Your task to perform on an android device: Go to calendar. Show me events next week Image 0: 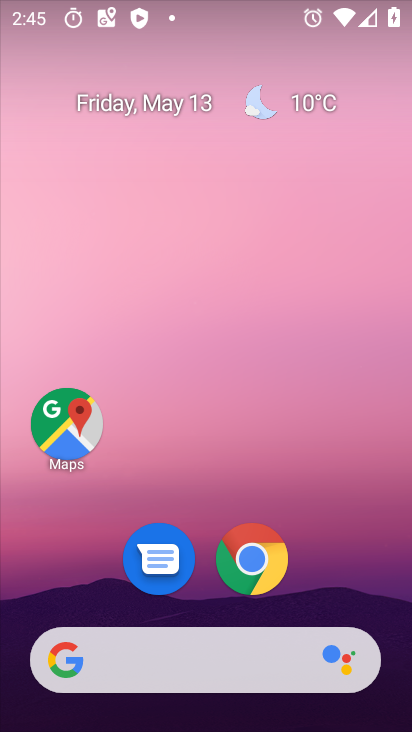
Step 0: drag from (202, 609) to (227, 287)
Your task to perform on an android device: Go to calendar. Show me events next week Image 1: 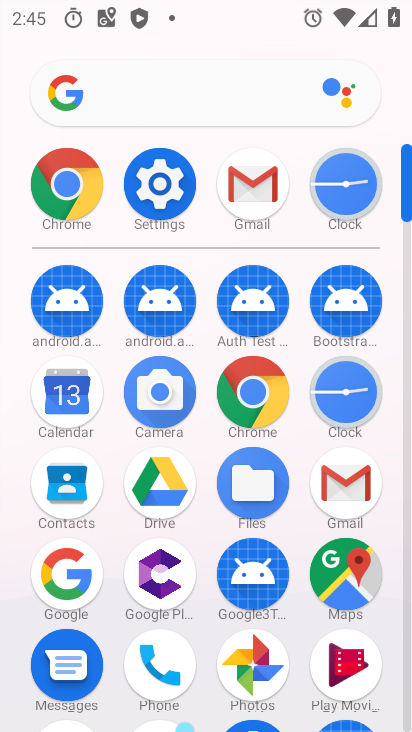
Step 1: click (85, 394)
Your task to perform on an android device: Go to calendar. Show me events next week Image 2: 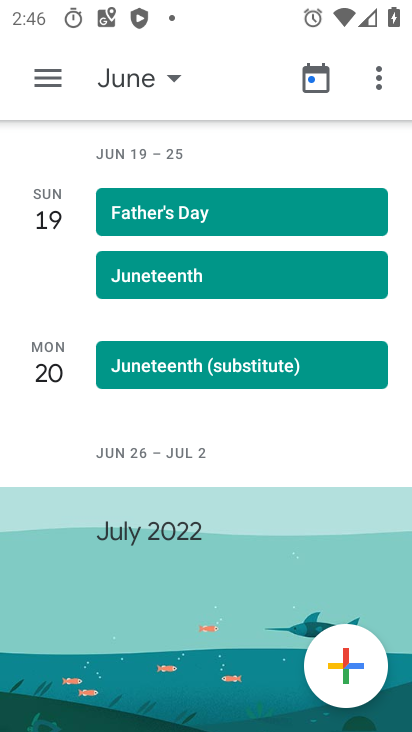
Step 2: click (165, 84)
Your task to perform on an android device: Go to calendar. Show me events next week Image 3: 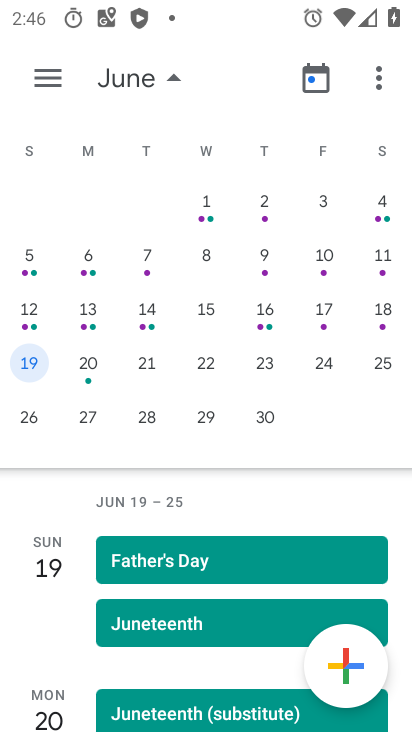
Step 3: drag from (69, 279) to (359, 294)
Your task to perform on an android device: Go to calendar. Show me events next week Image 4: 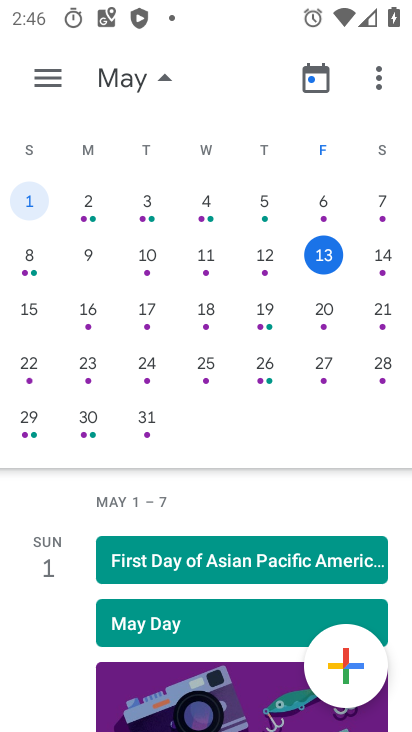
Step 4: click (85, 327)
Your task to perform on an android device: Go to calendar. Show me events next week Image 5: 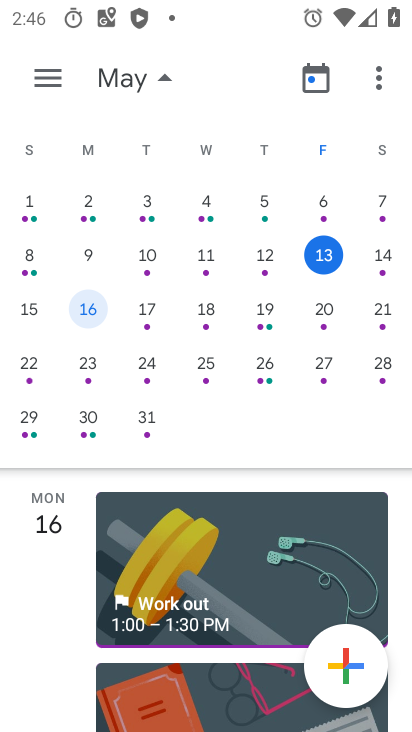
Step 5: click (131, 314)
Your task to perform on an android device: Go to calendar. Show me events next week Image 6: 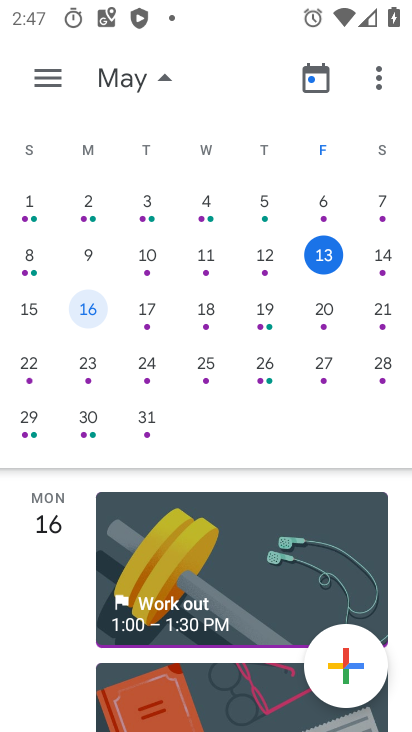
Step 6: click (321, 304)
Your task to perform on an android device: Go to calendar. Show me events next week Image 7: 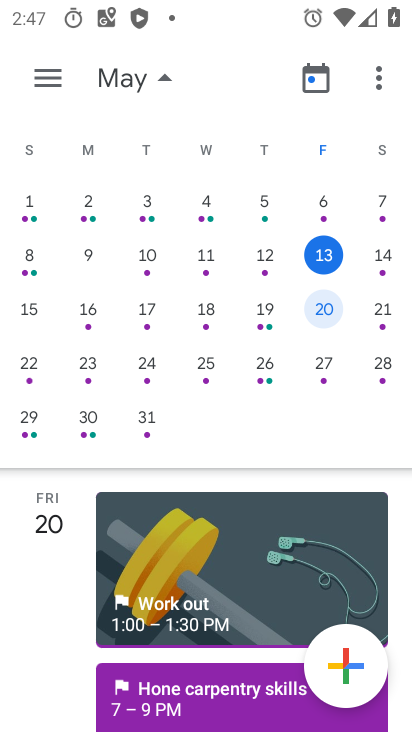
Step 7: task complete